Your task to perform on an android device: open chrome and create a bookmark for the current page Image 0: 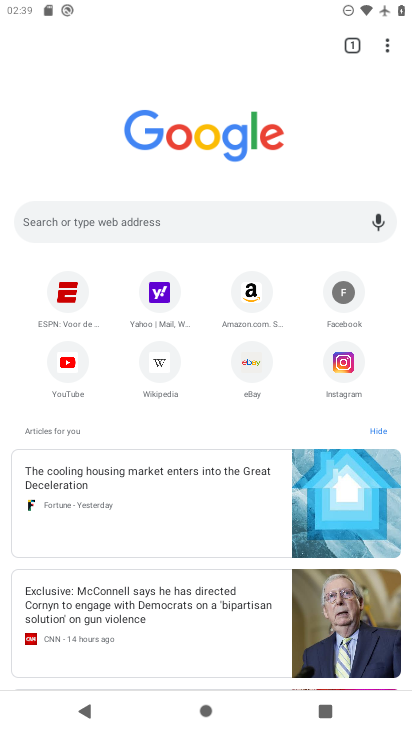
Step 0: click (387, 50)
Your task to perform on an android device: open chrome and create a bookmark for the current page Image 1: 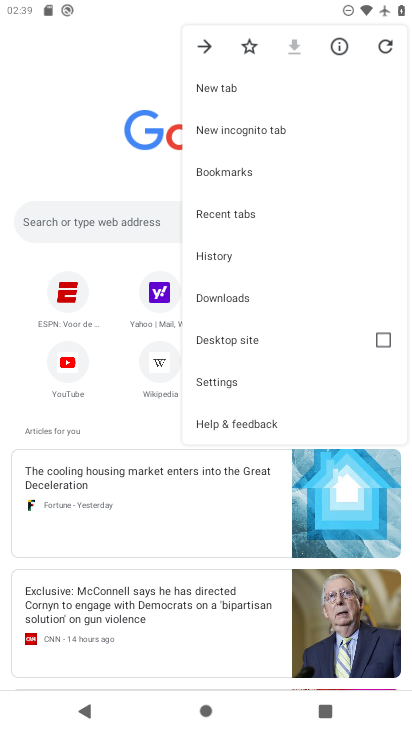
Step 1: click (251, 44)
Your task to perform on an android device: open chrome and create a bookmark for the current page Image 2: 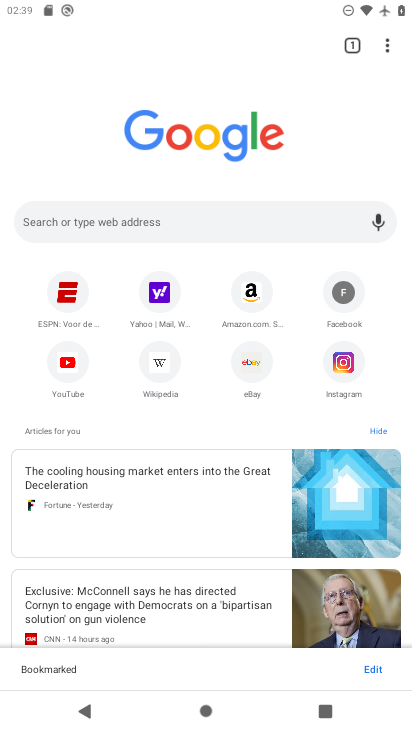
Step 2: task complete